Your task to perform on an android device: open device folders in google photos Image 0: 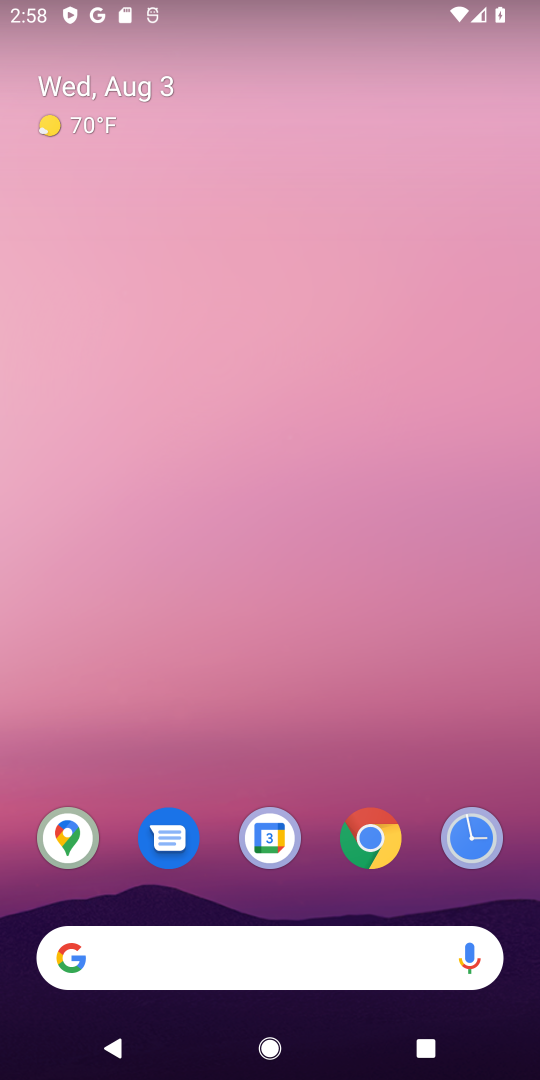
Step 0: drag from (227, 887) to (220, 318)
Your task to perform on an android device: open device folders in google photos Image 1: 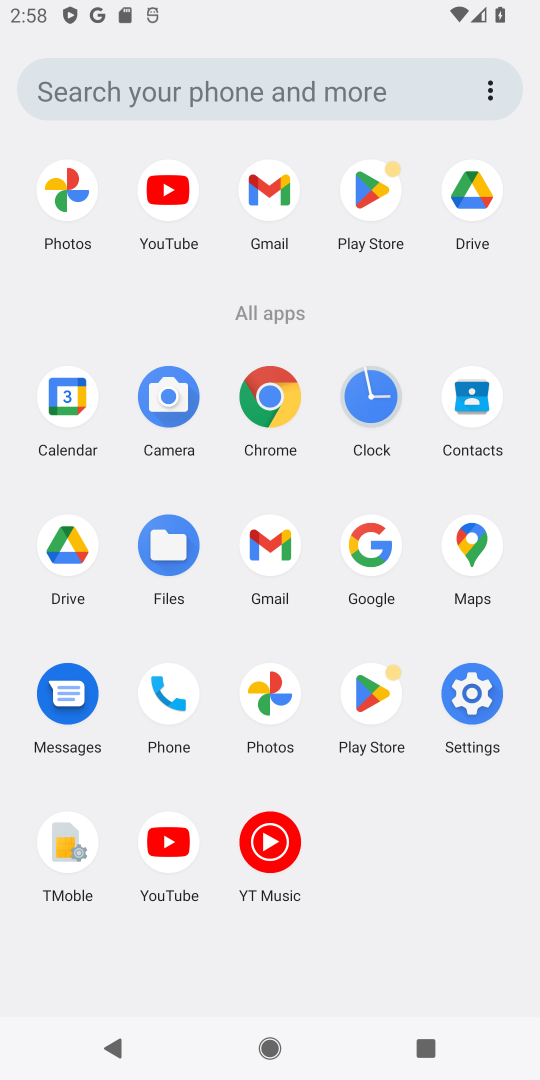
Step 1: click (253, 687)
Your task to perform on an android device: open device folders in google photos Image 2: 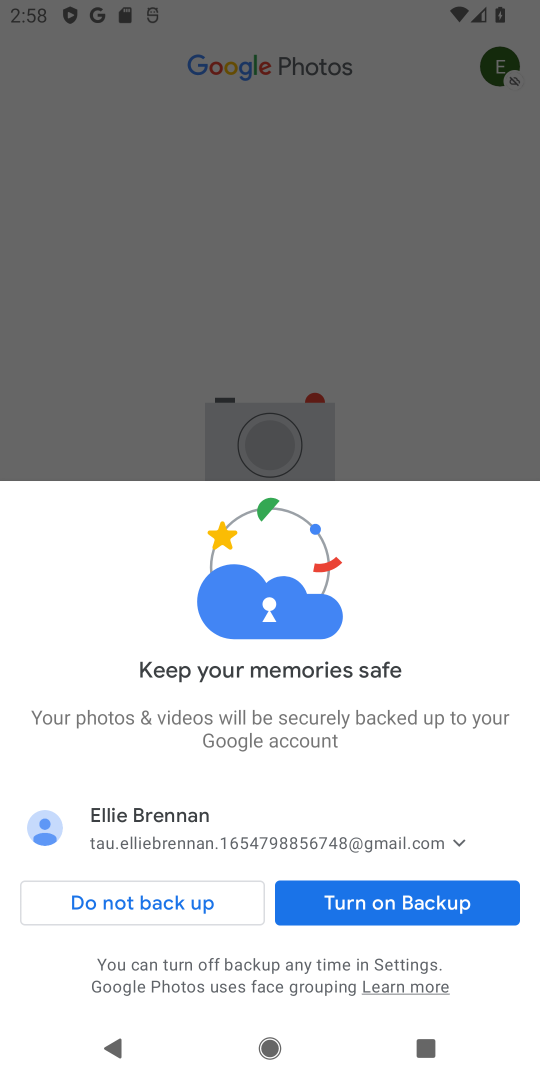
Step 2: click (450, 895)
Your task to perform on an android device: open device folders in google photos Image 3: 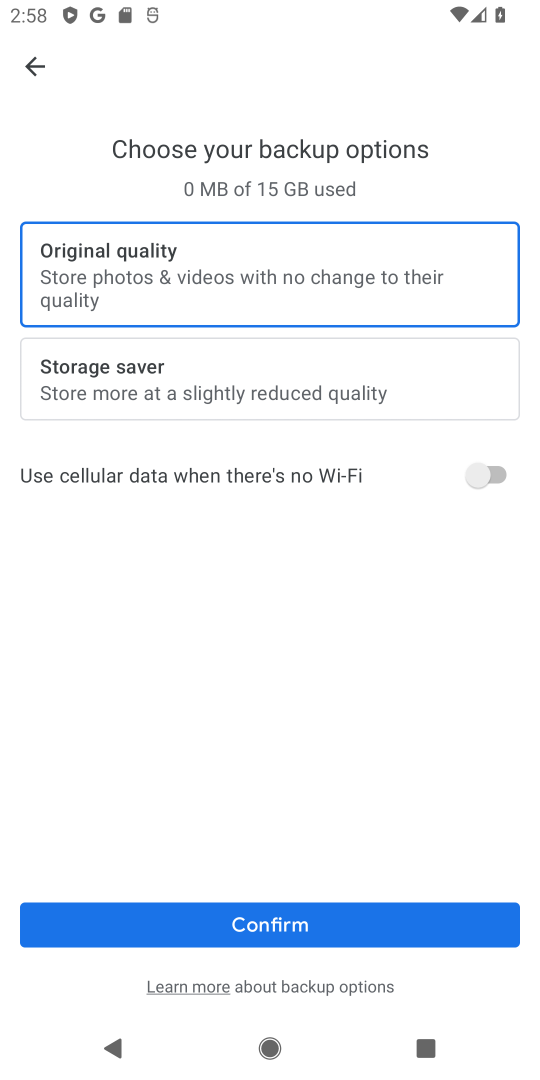
Step 3: click (397, 925)
Your task to perform on an android device: open device folders in google photos Image 4: 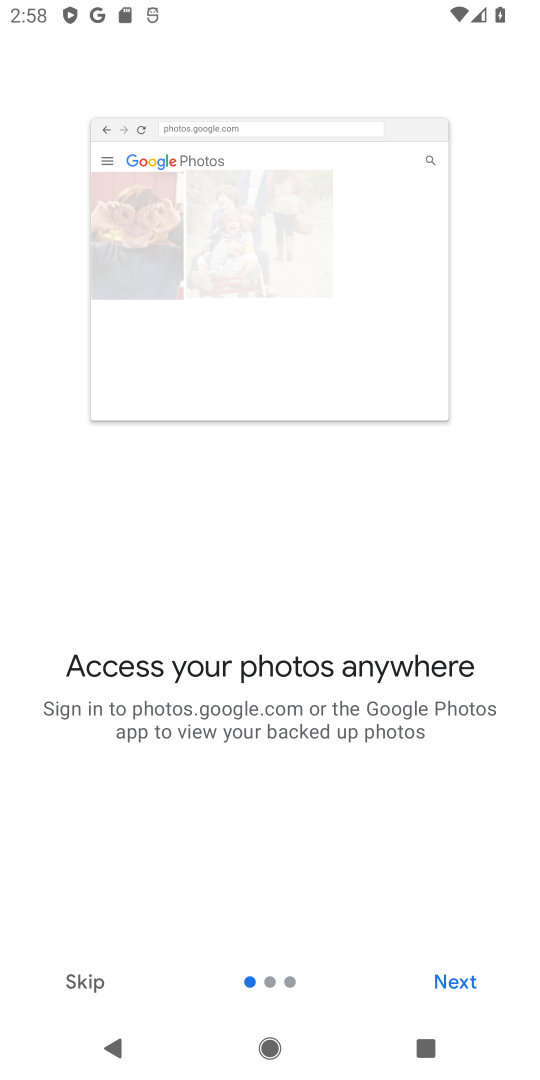
Step 4: click (76, 984)
Your task to perform on an android device: open device folders in google photos Image 5: 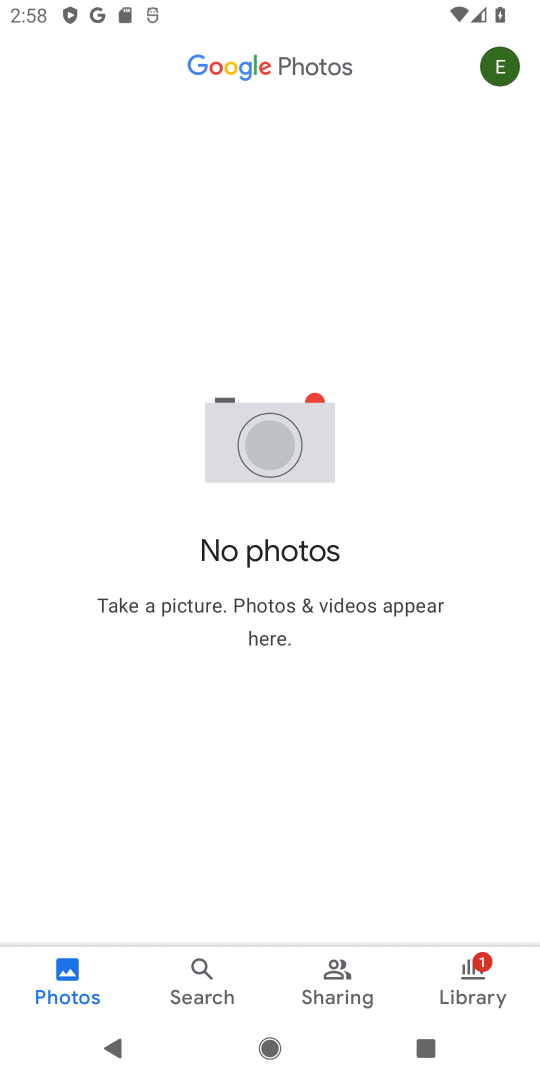
Step 5: click (202, 976)
Your task to perform on an android device: open device folders in google photos Image 6: 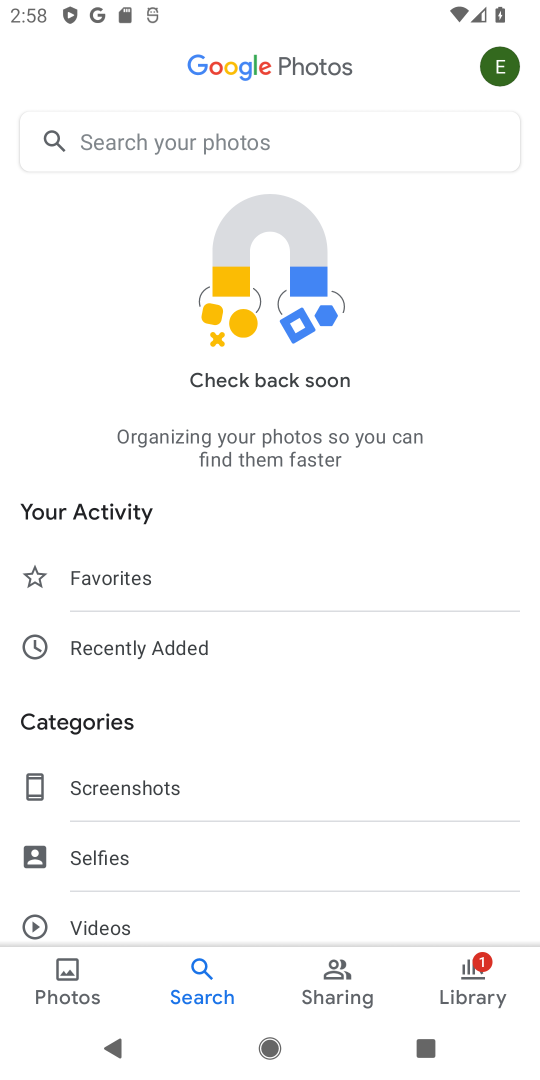
Step 6: task complete